Your task to perform on an android device: Open settings on Google Maps Image 0: 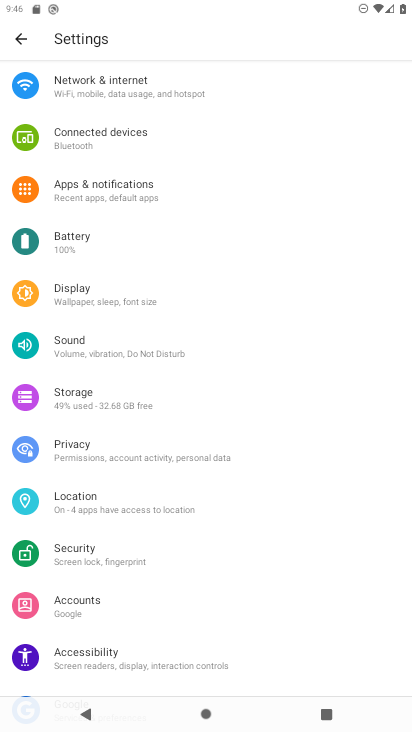
Step 0: press home button
Your task to perform on an android device: Open settings on Google Maps Image 1: 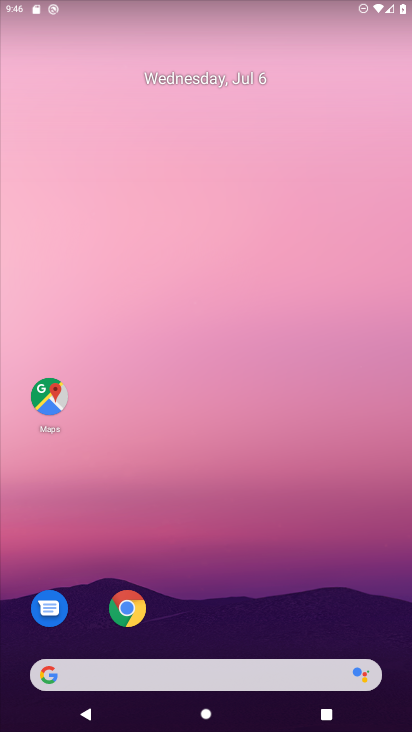
Step 1: drag from (205, 653) to (232, 344)
Your task to perform on an android device: Open settings on Google Maps Image 2: 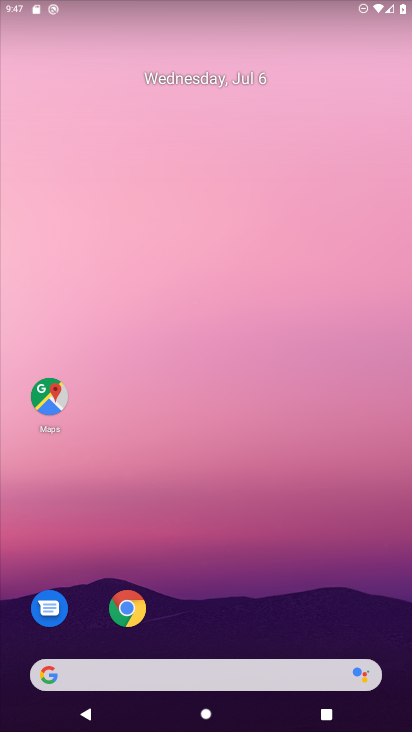
Step 2: drag from (220, 656) to (223, 307)
Your task to perform on an android device: Open settings on Google Maps Image 3: 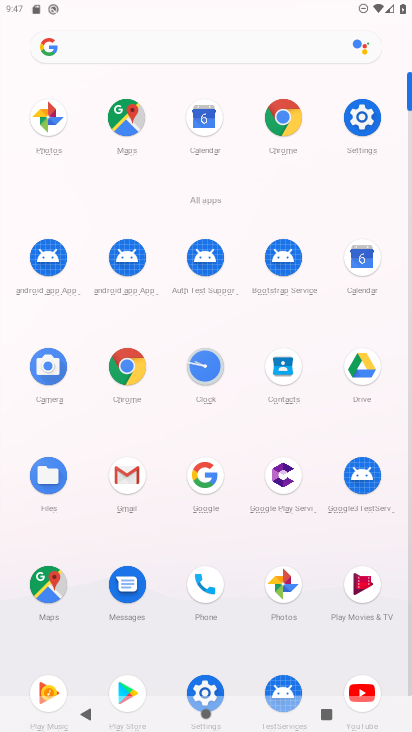
Step 3: click (38, 589)
Your task to perform on an android device: Open settings on Google Maps Image 4: 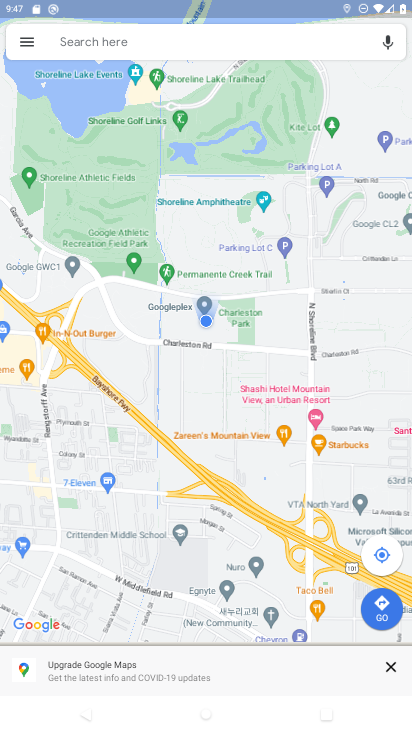
Step 4: click (30, 43)
Your task to perform on an android device: Open settings on Google Maps Image 5: 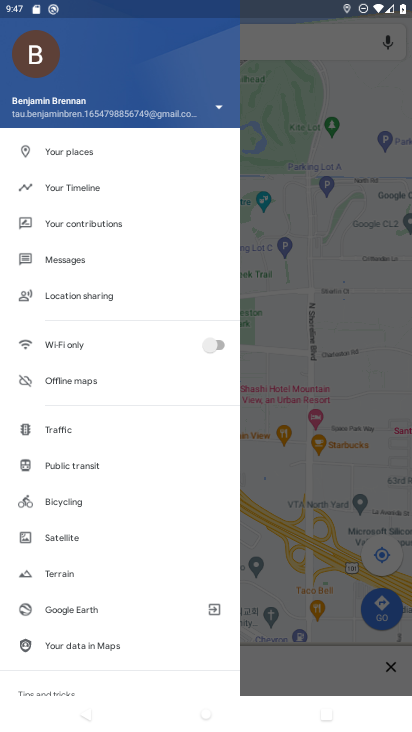
Step 5: drag from (75, 655) to (93, 259)
Your task to perform on an android device: Open settings on Google Maps Image 6: 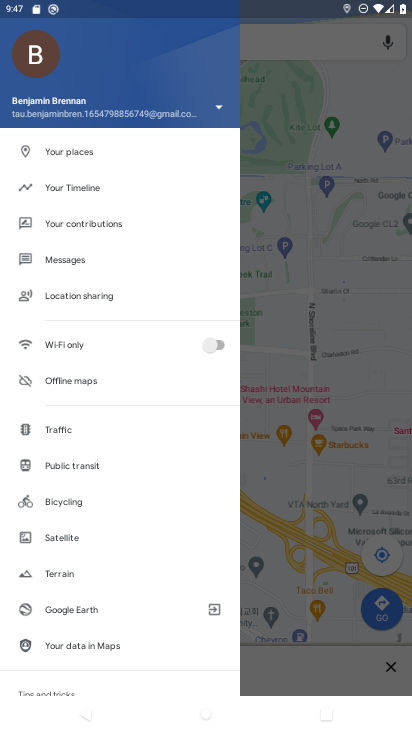
Step 6: drag from (92, 661) to (130, 232)
Your task to perform on an android device: Open settings on Google Maps Image 7: 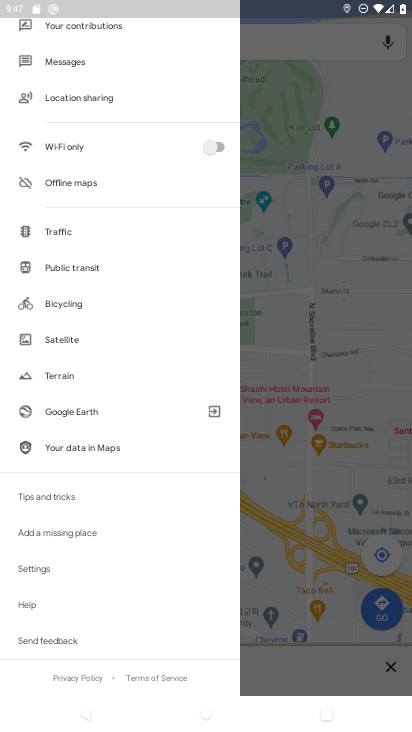
Step 7: drag from (66, 659) to (68, 387)
Your task to perform on an android device: Open settings on Google Maps Image 8: 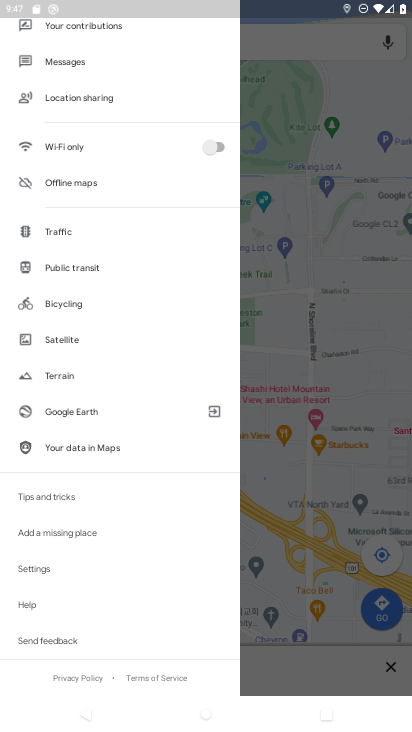
Step 8: click (33, 569)
Your task to perform on an android device: Open settings on Google Maps Image 9: 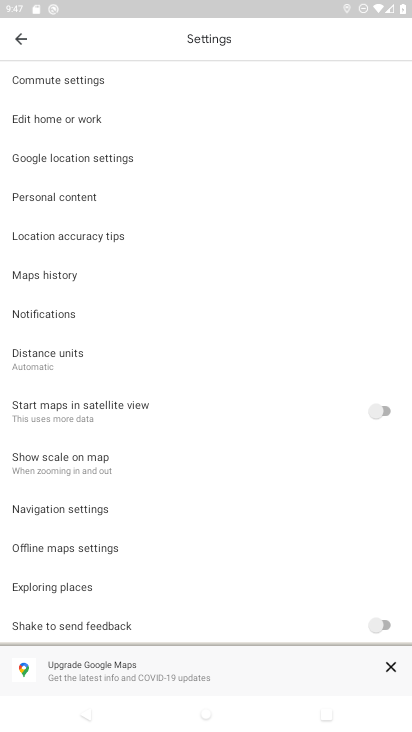
Step 9: task complete